Your task to perform on an android device: What's the weather going to be this weekend? Image 0: 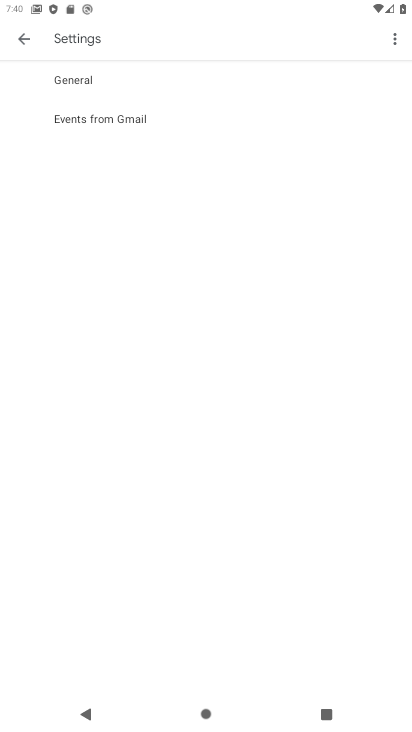
Step 0: press home button
Your task to perform on an android device: What's the weather going to be this weekend? Image 1: 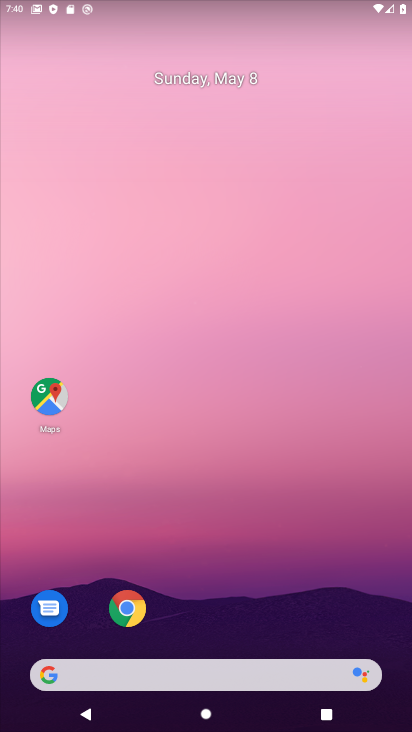
Step 1: click (126, 601)
Your task to perform on an android device: What's the weather going to be this weekend? Image 2: 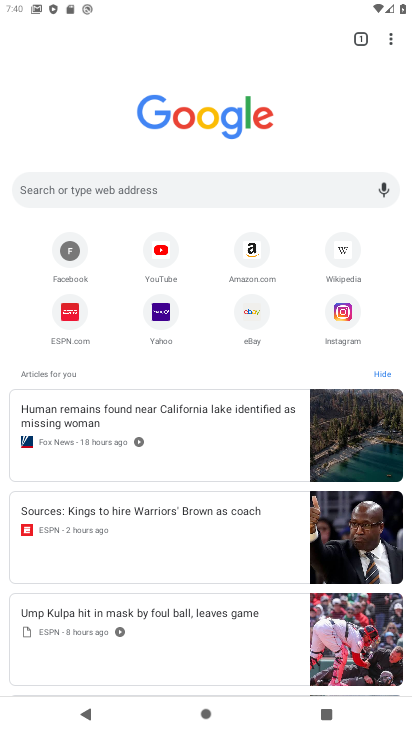
Step 2: click (251, 196)
Your task to perform on an android device: What's the weather going to be this weekend? Image 3: 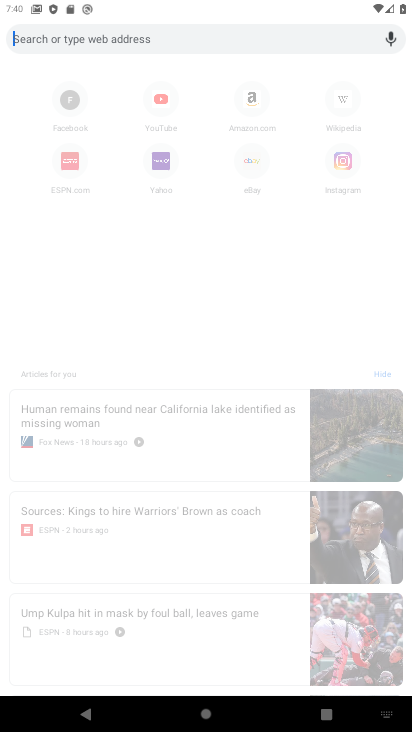
Step 3: type "whats the weather going to be this weekend?"
Your task to perform on an android device: What's the weather going to be this weekend? Image 4: 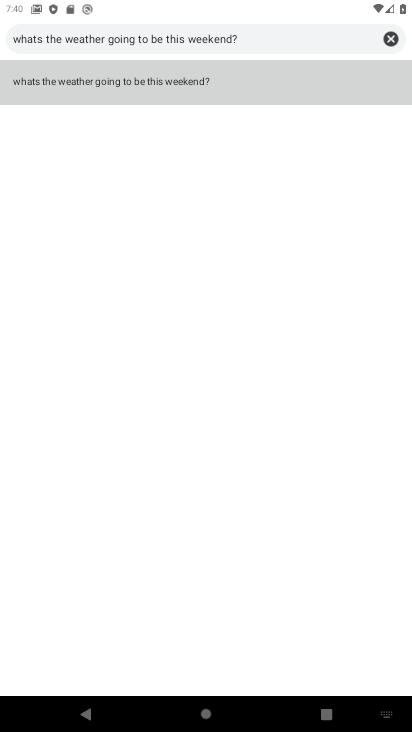
Step 4: click (139, 89)
Your task to perform on an android device: What's the weather going to be this weekend? Image 5: 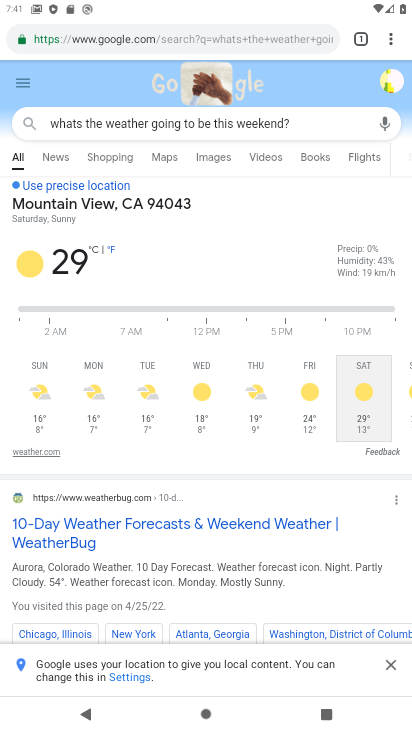
Step 5: task complete